Your task to perform on an android device: check google app version Image 0: 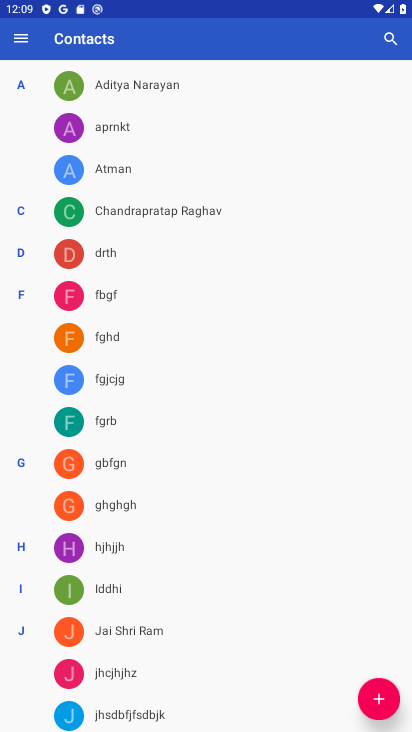
Step 0: drag from (217, 600) to (336, 725)
Your task to perform on an android device: check google app version Image 1: 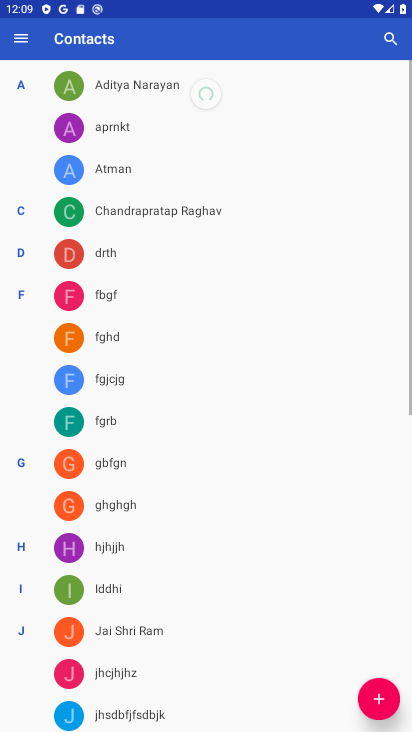
Step 1: press home button
Your task to perform on an android device: check google app version Image 2: 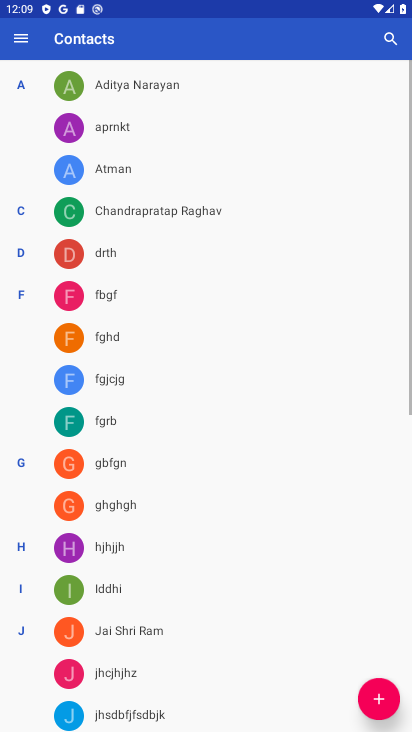
Step 2: drag from (183, 547) to (202, 106)
Your task to perform on an android device: check google app version Image 3: 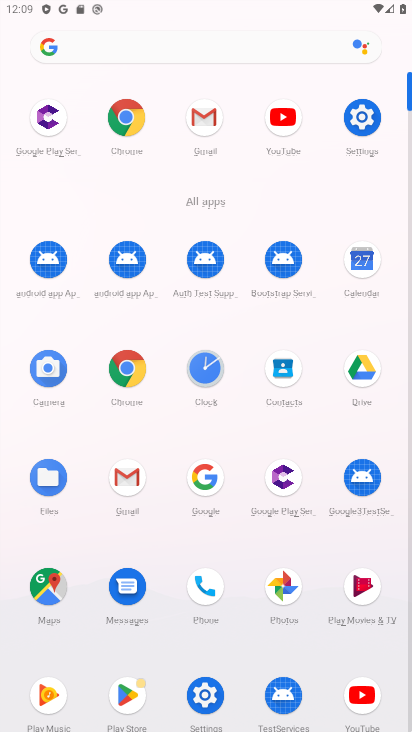
Step 3: click (198, 478)
Your task to perform on an android device: check google app version Image 4: 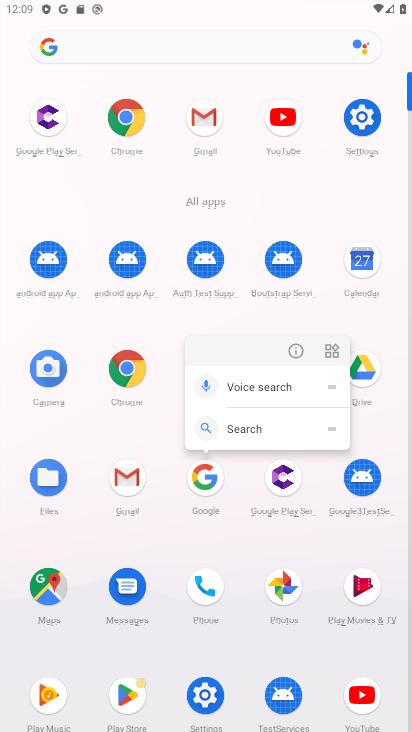
Step 4: click (293, 350)
Your task to perform on an android device: check google app version Image 5: 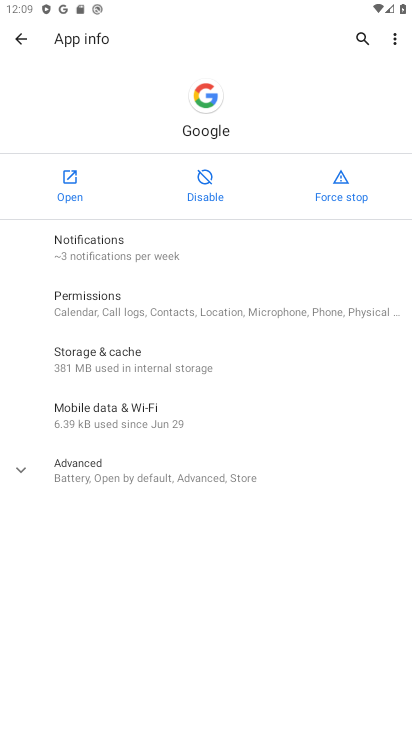
Step 5: drag from (214, 538) to (192, 342)
Your task to perform on an android device: check google app version Image 6: 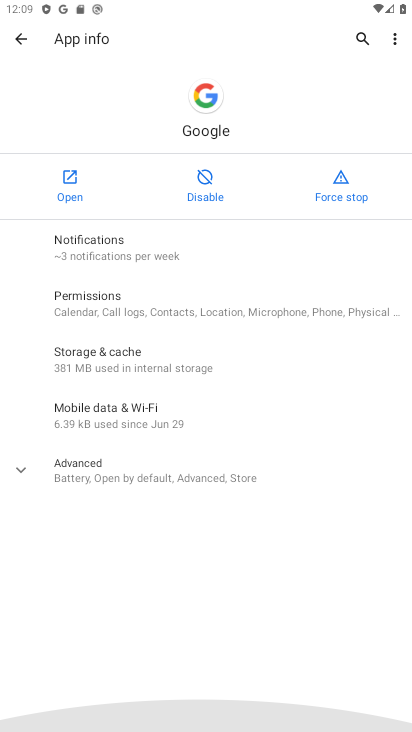
Step 6: click (66, 183)
Your task to perform on an android device: check google app version Image 7: 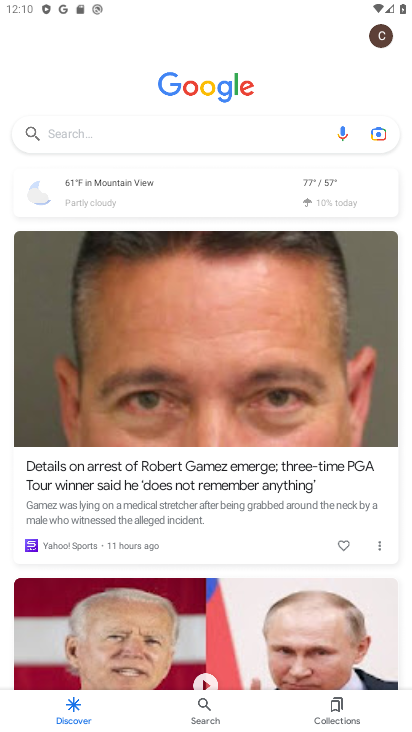
Step 7: click (374, 23)
Your task to perform on an android device: check google app version Image 8: 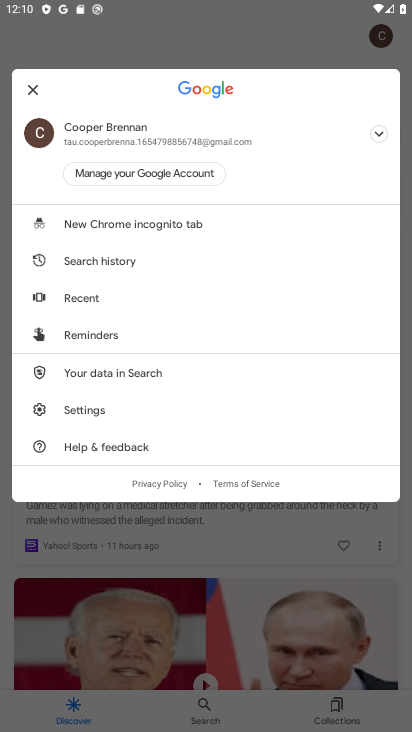
Step 8: click (64, 405)
Your task to perform on an android device: check google app version Image 9: 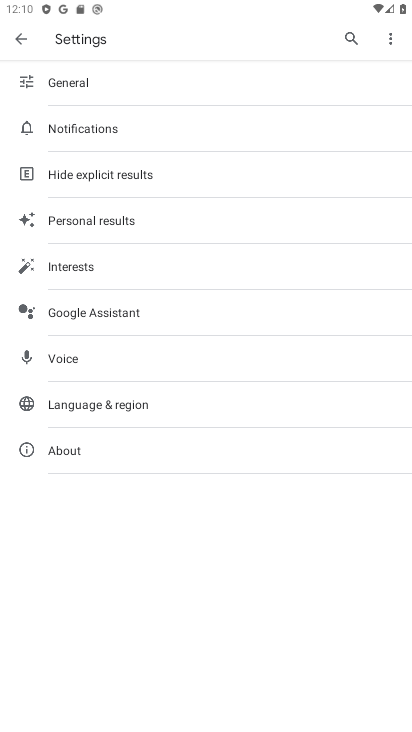
Step 9: click (144, 454)
Your task to perform on an android device: check google app version Image 10: 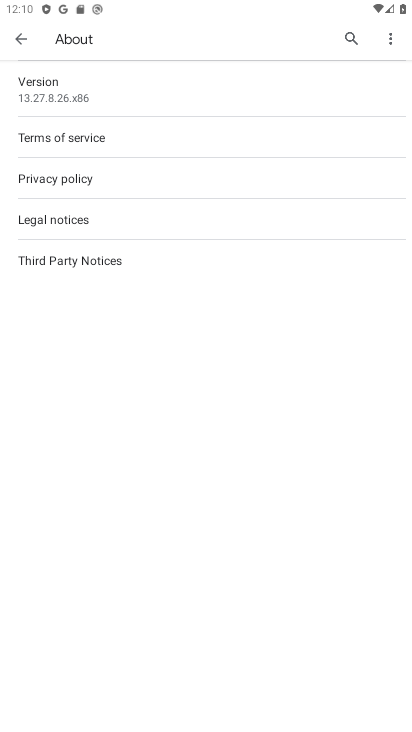
Step 10: click (64, 91)
Your task to perform on an android device: check google app version Image 11: 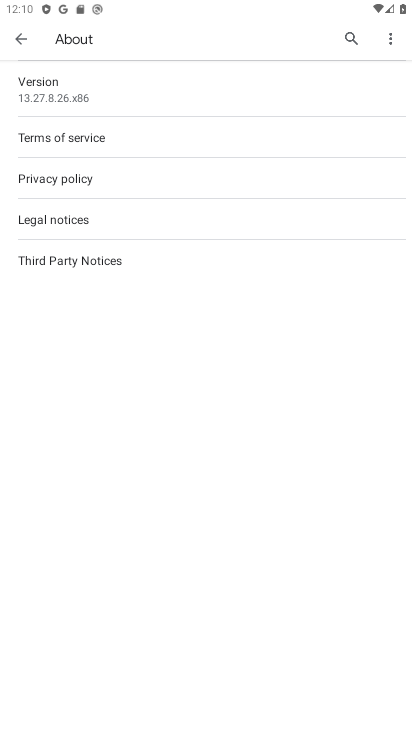
Step 11: task complete